Your task to perform on an android device: turn off notifications settings in the gmail app Image 0: 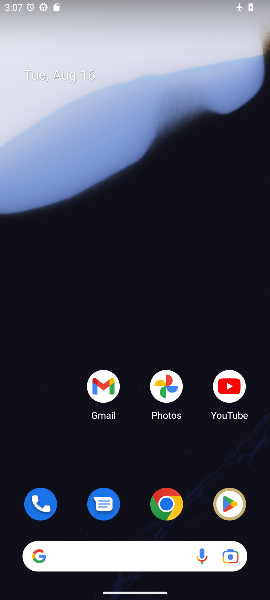
Step 0: click (99, 384)
Your task to perform on an android device: turn off notifications settings in the gmail app Image 1: 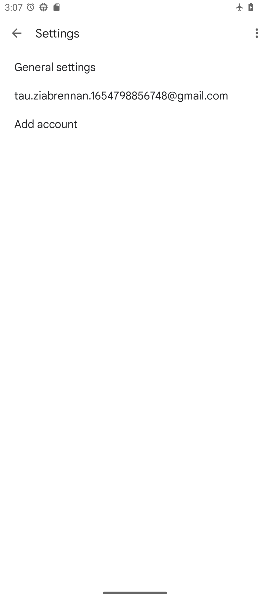
Step 1: click (33, 61)
Your task to perform on an android device: turn off notifications settings in the gmail app Image 2: 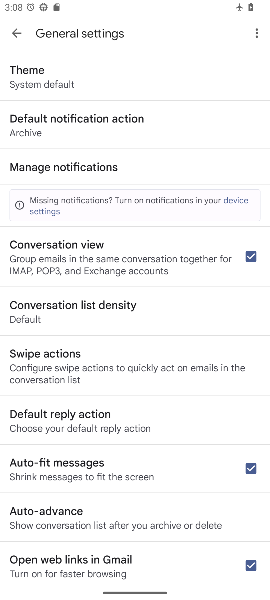
Step 2: click (65, 160)
Your task to perform on an android device: turn off notifications settings in the gmail app Image 3: 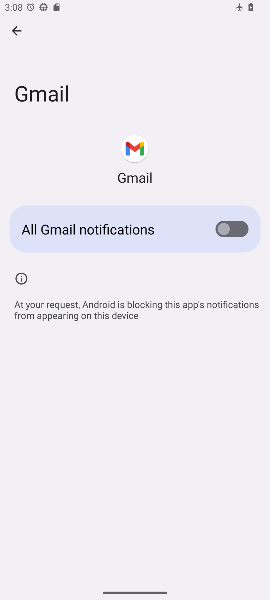
Step 3: task complete